Your task to perform on an android device: toggle improve location accuracy Image 0: 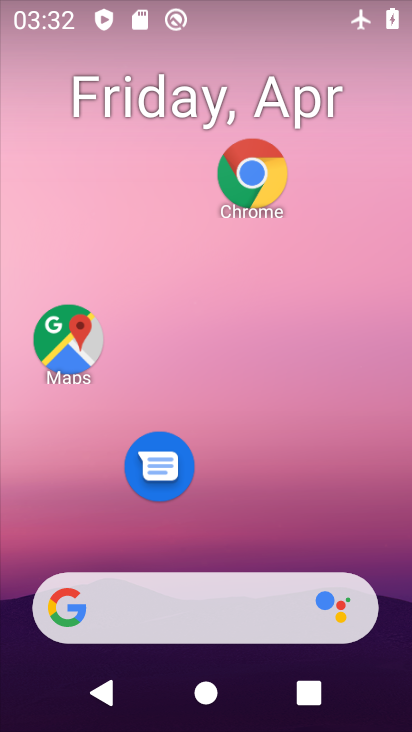
Step 0: drag from (266, 539) to (163, 112)
Your task to perform on an android device: toggle improve location accuracy Image 1: 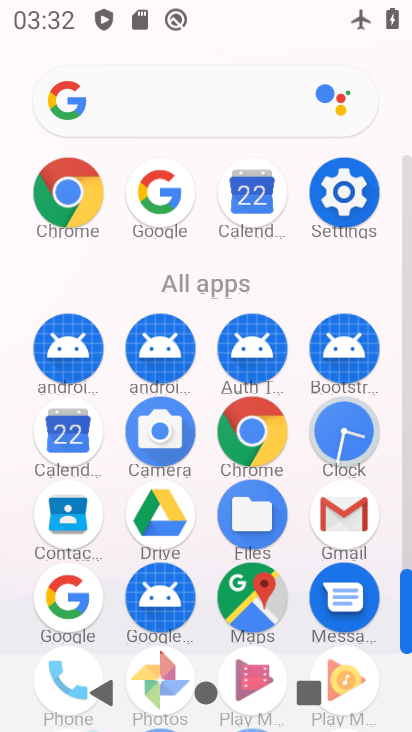
Step 1: click (339, 212)
Your task to perform on an android device: toggle improve location accuracy Image 2: 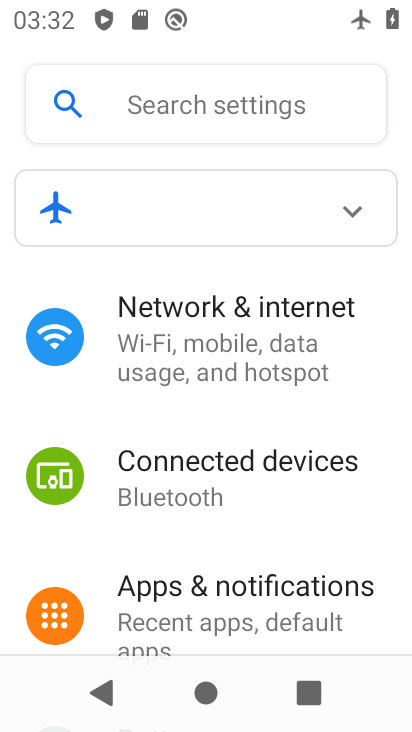
Step 2: drag from (278, 480) to (244, 145)
Your task to perform on an android device: toggle improve location accuracy Image 3: 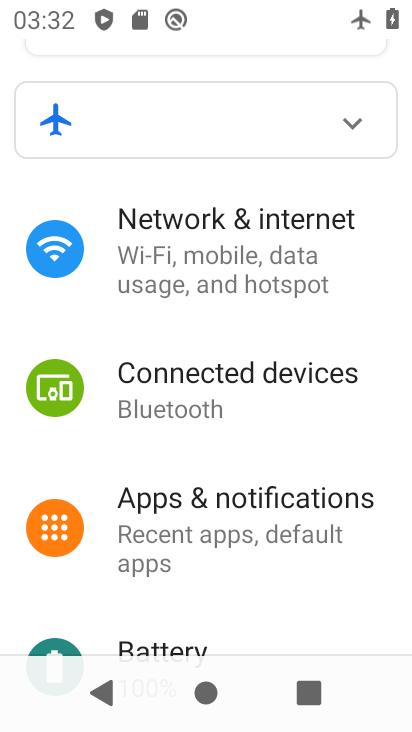
Step 3: drag from (275, 534) to (277, 219)
Your task to perform on an android device: toggle improve location accuracy Image 4: 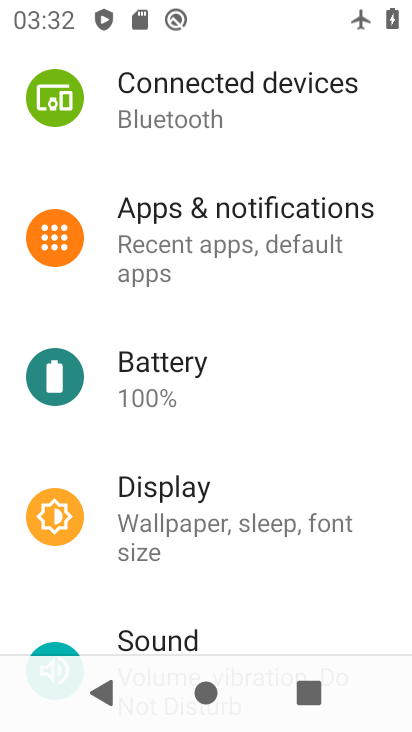
Step 4: drag from (271, 567) to (260, 253)
Your task to perform on an android device: toggle improve location accuracy Image 5: 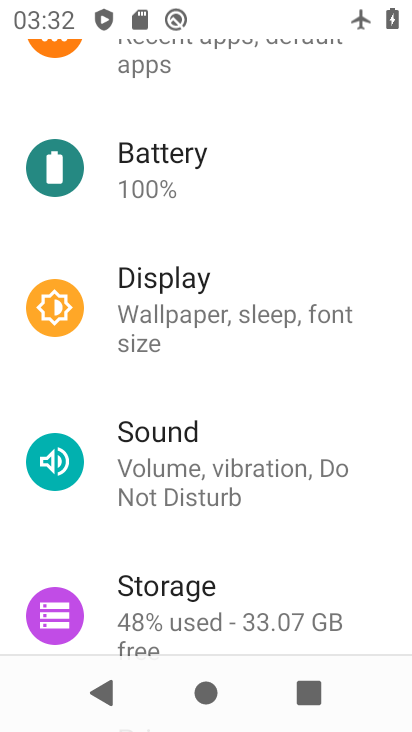
Step 5: drag from (247, 490) to (231, 242)
Your task to perform on an android device: toggle improve location accuracy Image 6: 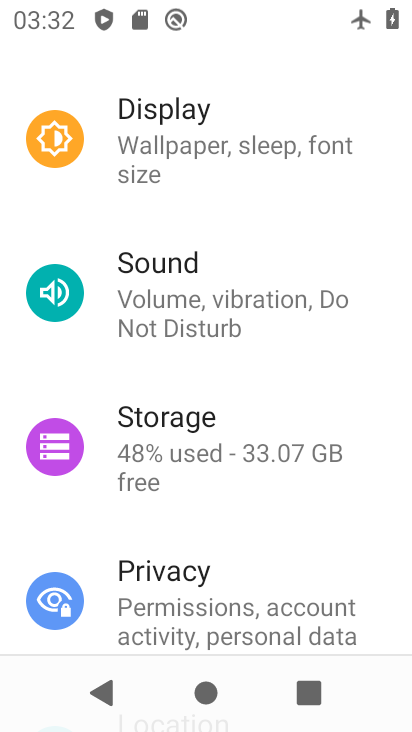
Step 6: drag from (235, 592) to (254, 175)
Your task to perform on an android device: toggle improve location accuracy Image 7: 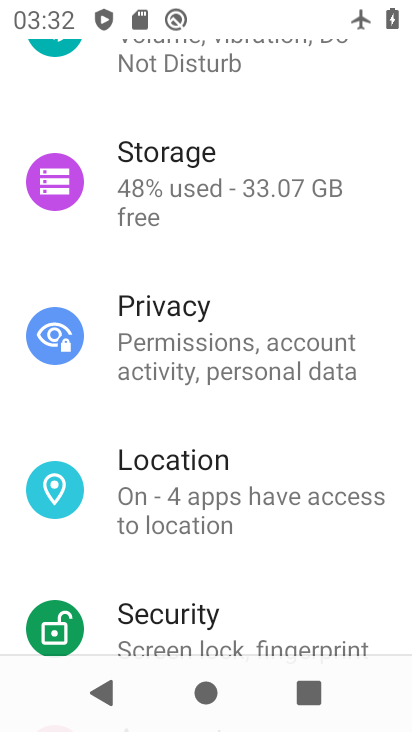
Step 7: click (157, 521)
Your task to perform on an android device: toggle improve location accuracy Image 8: 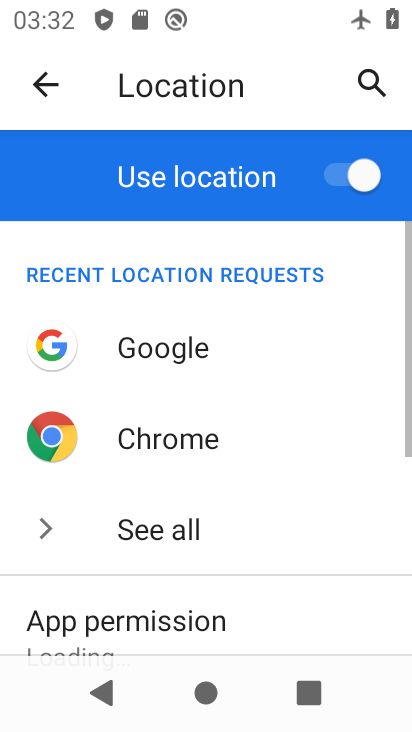
Step 8: drag from (183, 504) to (223, 159)
Your task to perform on an android device: toggle improve location accuracy Image 9: 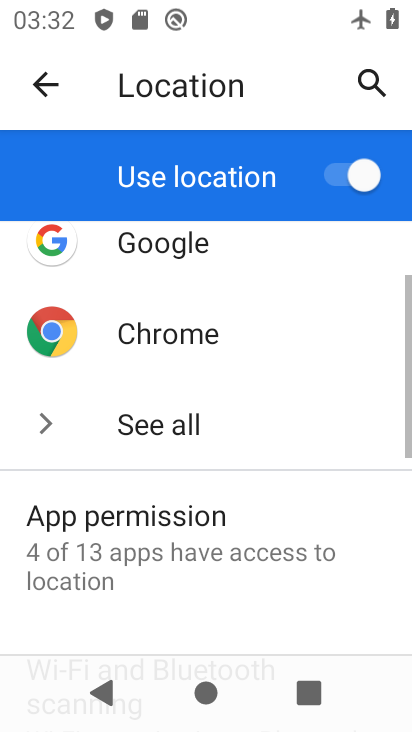
Step 9: drag from (222, 571) to (244, 161)
Your task to perform on an android device: toggle improve location accuracy Image 10: 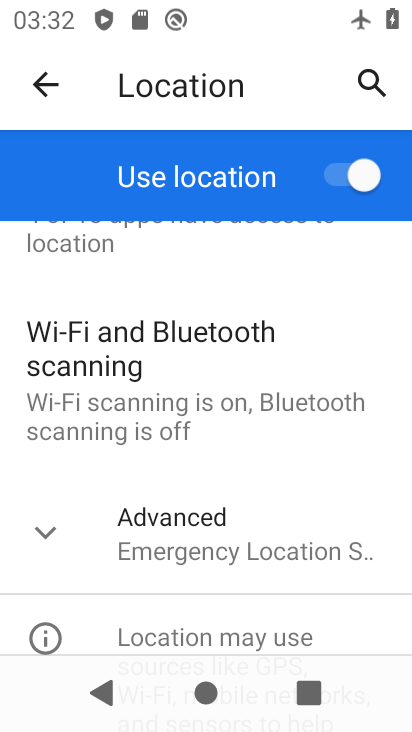
Step 10: click (206, 531)
Your task to perform on an android device: toggle improve location accuracy Image 11: 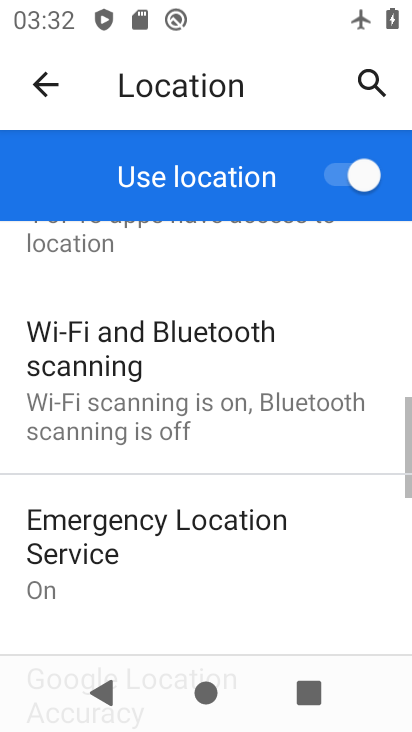
Step 11: drag from (216, 471) to (221, 178)
Your task to perform on an android device: toggle improve location accuracy Image 12: 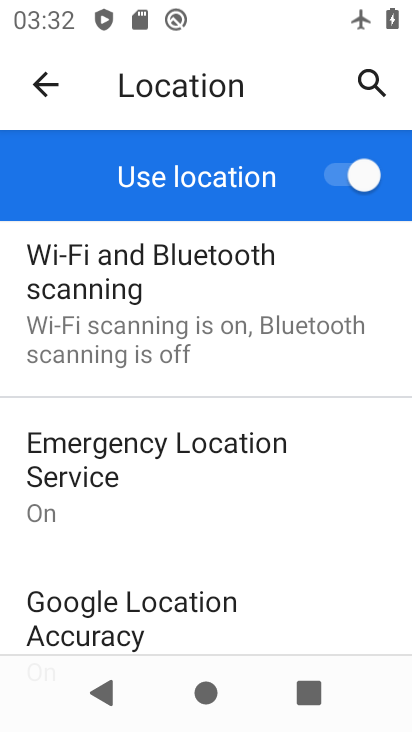
Step 12: drag from (215, 587) to (220, 305)
Your task to perform on an android device: toggle improve location accuracy Image 13: 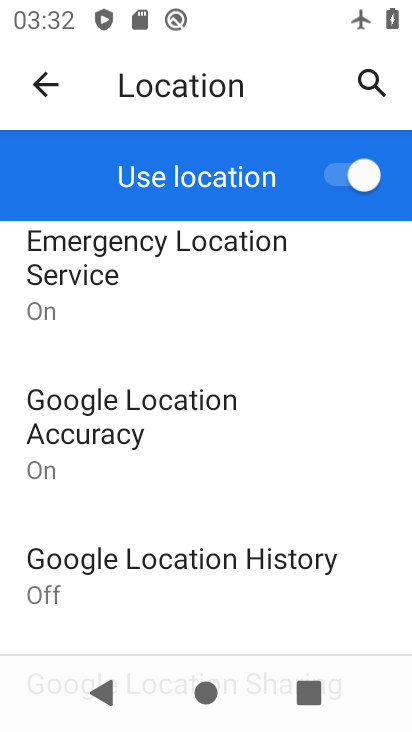
Step 13: click (199, 436)
Your task to perform on an android device: toggle improve location accuracy Image 14: 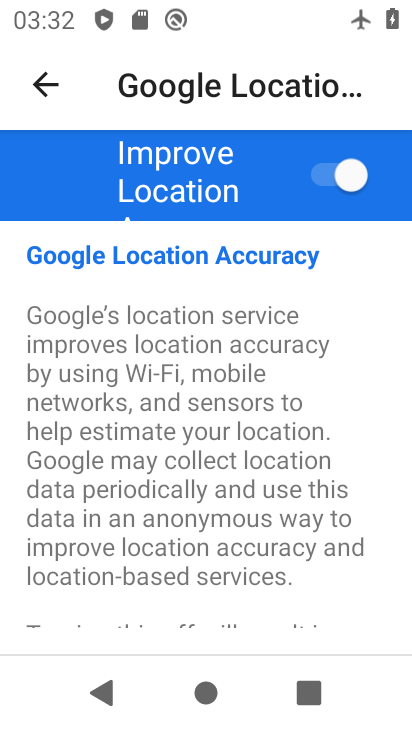
Step 14: click (349, 180)
Your task to perform on an android device: toggle improve location accuracy Image 15: 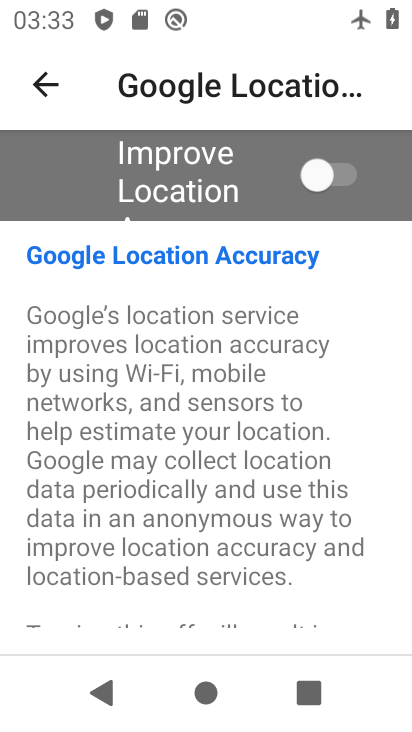
Step 15: task complete